Your task to perform on an android device: toggle improve location accuracy Image 0: 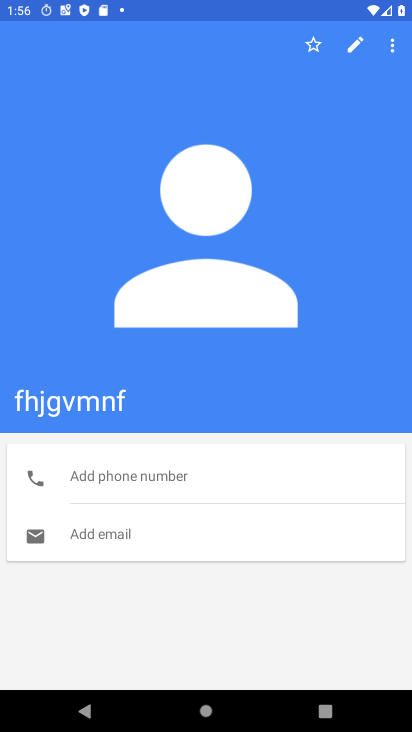
Step 0: press home button
Your task to perform on an android device: toggle improve location accuracy Image 1: 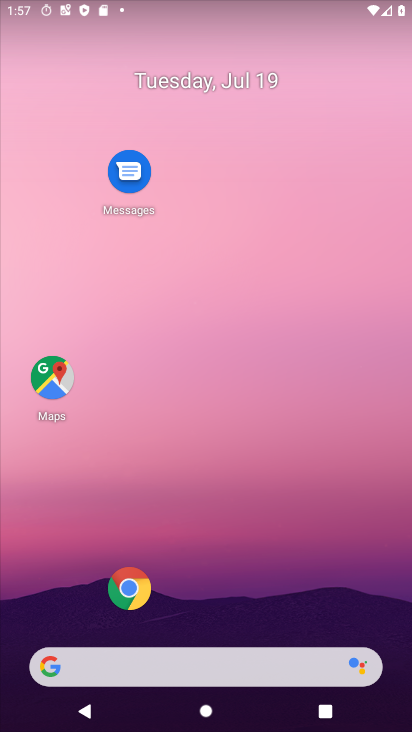
Step 1: drag from (31, 702) to (183, 46)
Your task to perform on an android device: toggle improve location accuracy Image 2: 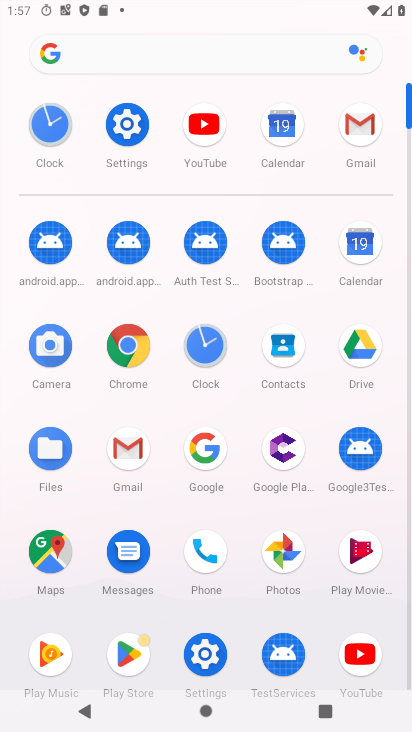
Step 2: click (217, 652)
Your task to perform on an android device: toggle improve location accuracy Image 3: 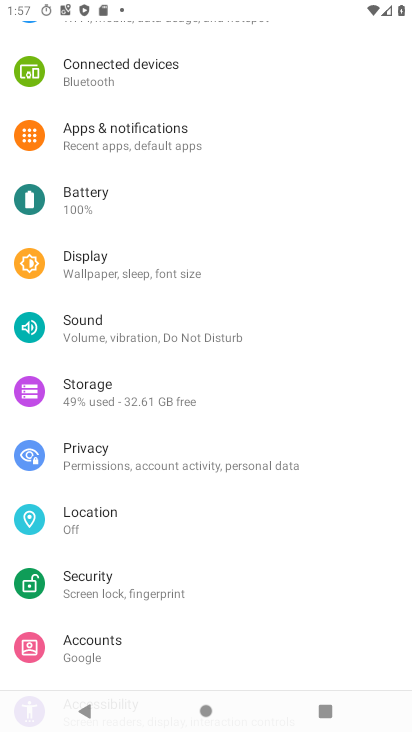
Step 3: click (103, 526)
Your task to perform on an android device: toggle improve location accuracy Image 4: 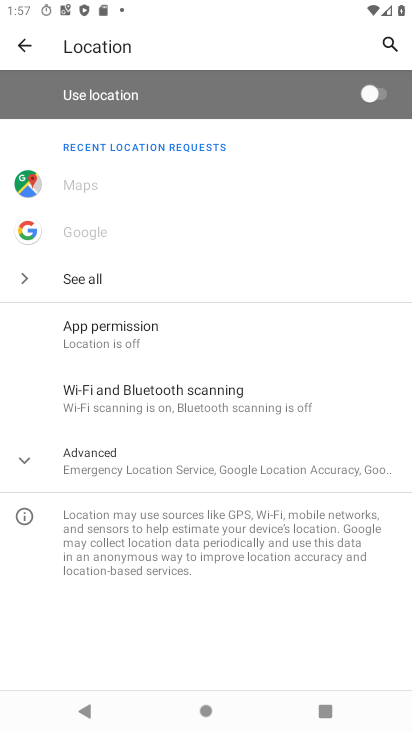
Step 4: click (366, 92)
Your task to perform on an android device: toggle improve location accuracy Image 5: 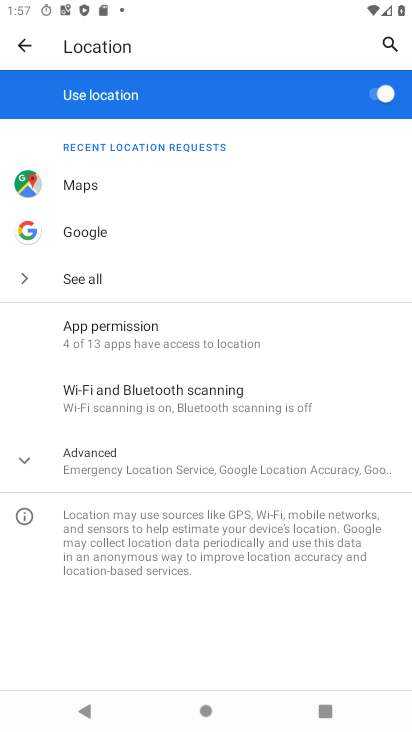
Step 5: task complete